Your task to perform on an android device: turn off location Image 0: 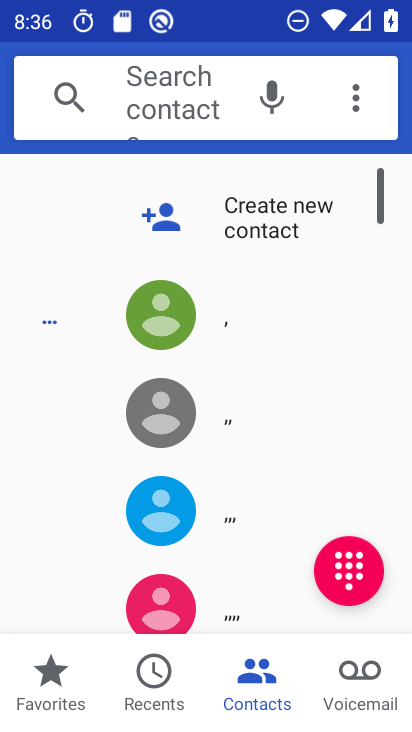
Step 0: press home button
Your task to perform on an android device: turn off location Image 1: 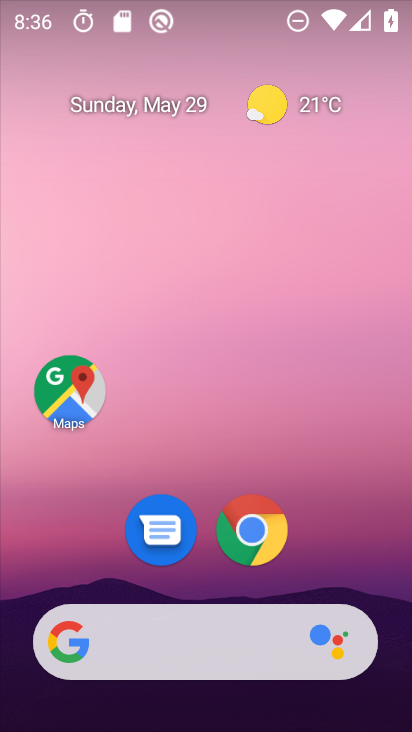
Step 1: drag from (303, 699) to (322, 258)
Your task to perform on an android device: turn off location Image 2: 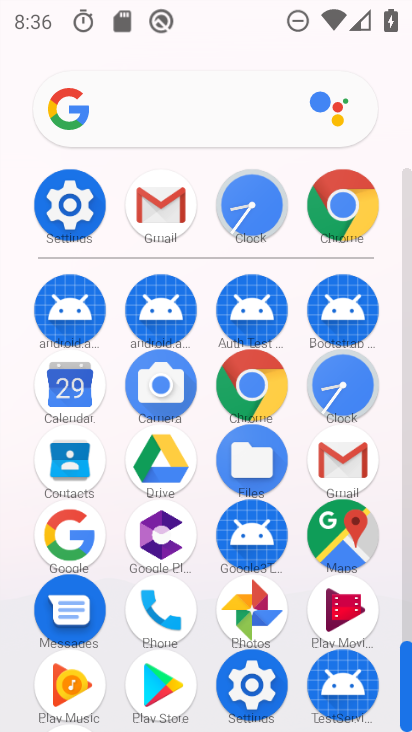
Step 2: click (70, 208)
Your task to perform on an android device: turn off location Image 3: 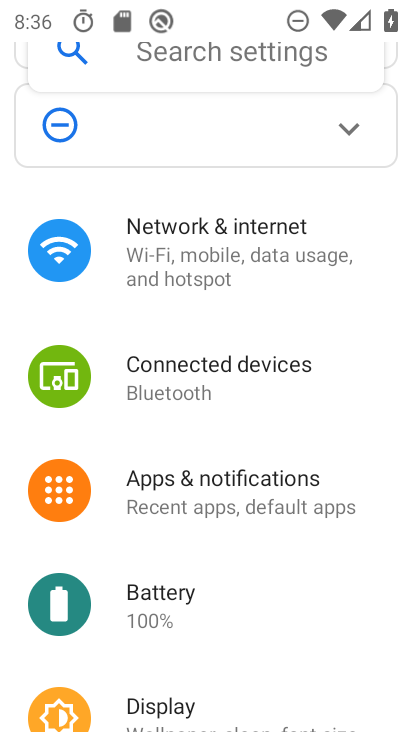
Step 3: click (185, 63)
Your task to perform on an android device: turn off location Image 4: 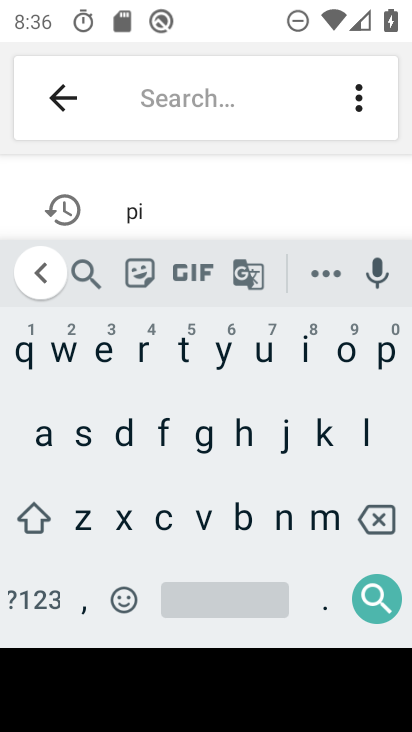
Step 4: click (363, 421)
Your task to perform on an android device: turn off location Image 5: 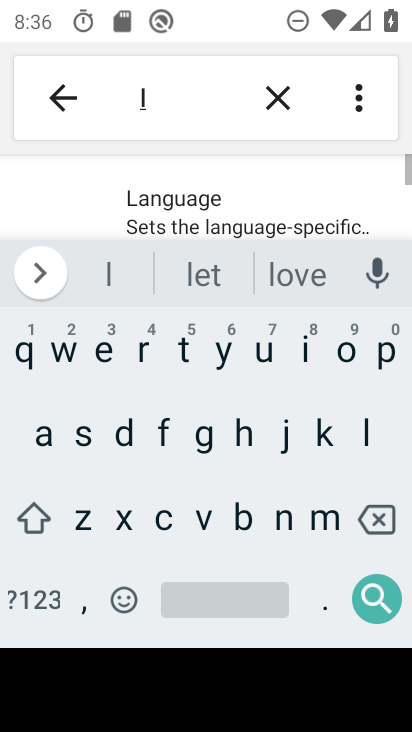
Step 5: click (344, 355)
Your task to perform on an android device: turn off location Image 6: 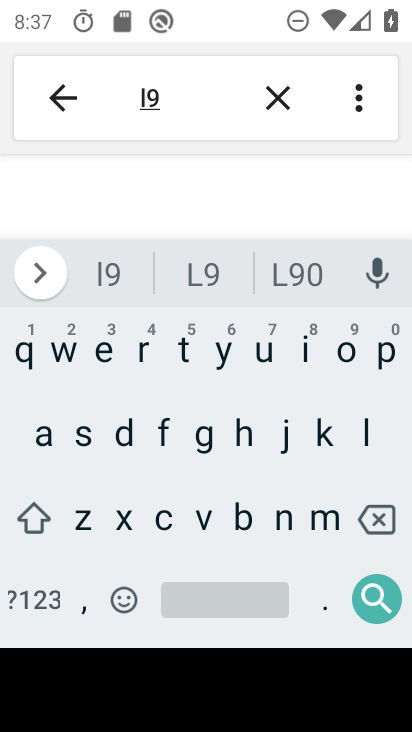
Step 6: click (379, 510)
Your task to perform on an android device: turn off location Image 7: 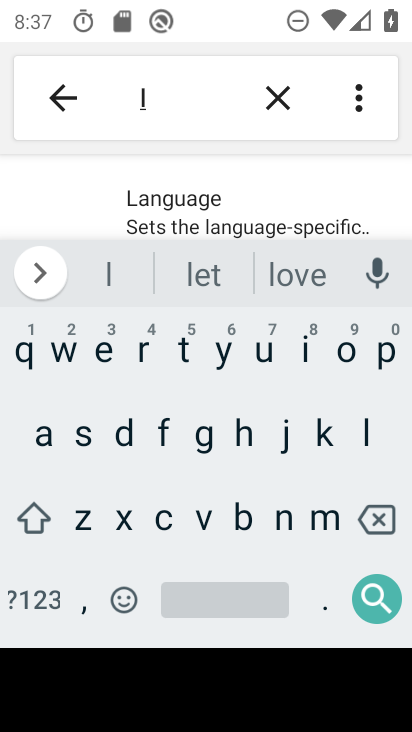
Step 7: click (341, 355)
Your task to perform on an android device: turn off location Image 8: 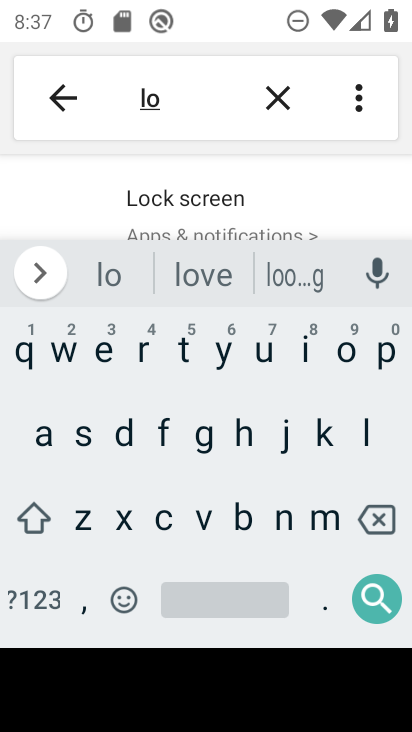
Step 8: press back button
Your task to perform on an android device: turn off location Image 9: 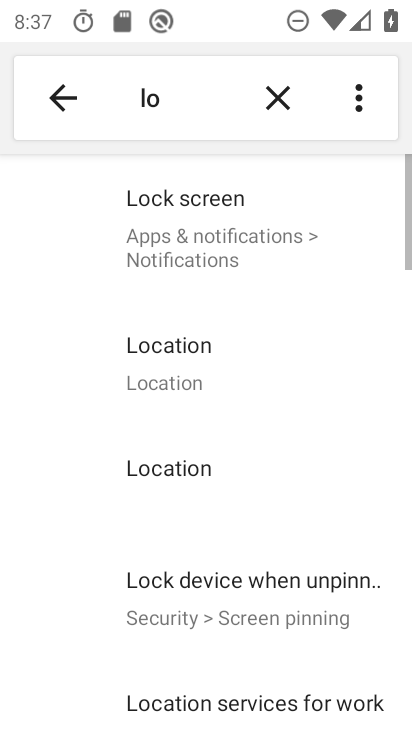
Step 9: click (221, 377)
Your task to perform on an android device: turn off location Image 10: 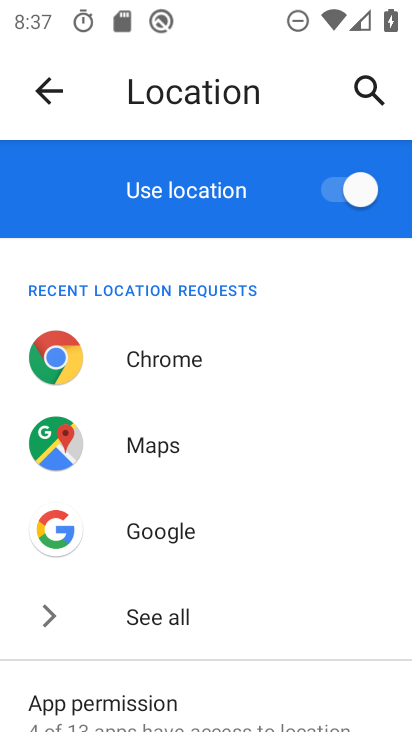
Step 10: click (340, 198)
Your task to perform on an android device: turn off location Image 11: 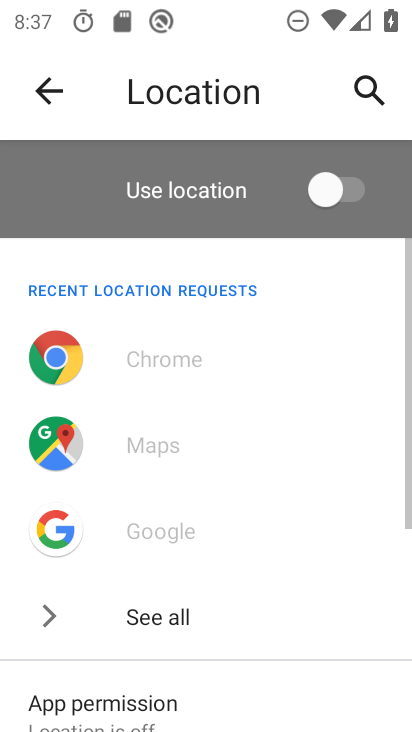
Step 11: task complete